Your task to perform on an android device: Go to CNN.com Image 0: 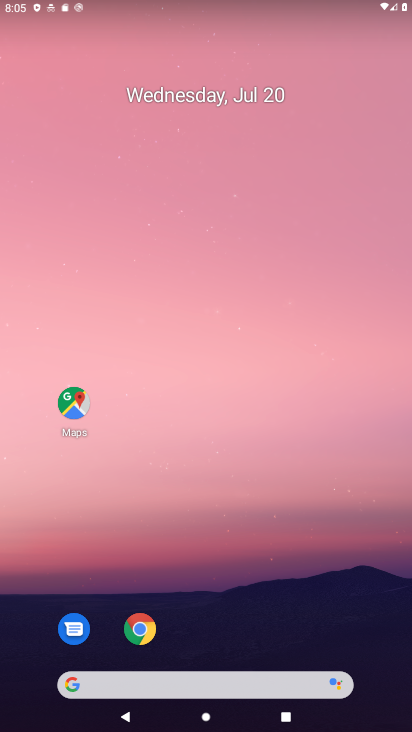
Step 0: drag from (288, 582) to (288, 113)
Your task to perform on an android device: Go to CNN.com Image 1: 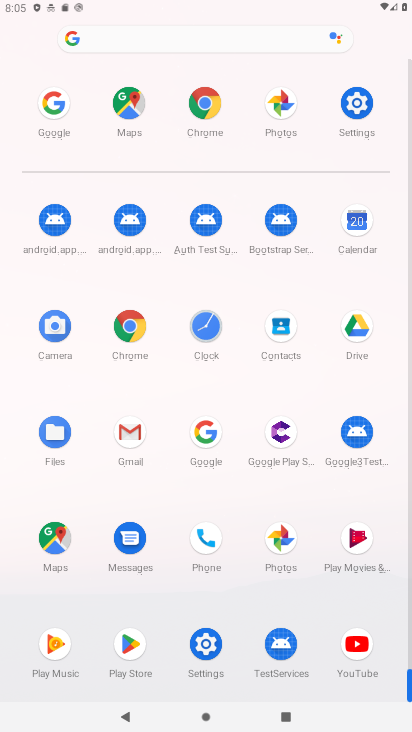
Step 1: click (206, 107)
Your task to perform on an android device: Go to CNN.com Image 2: 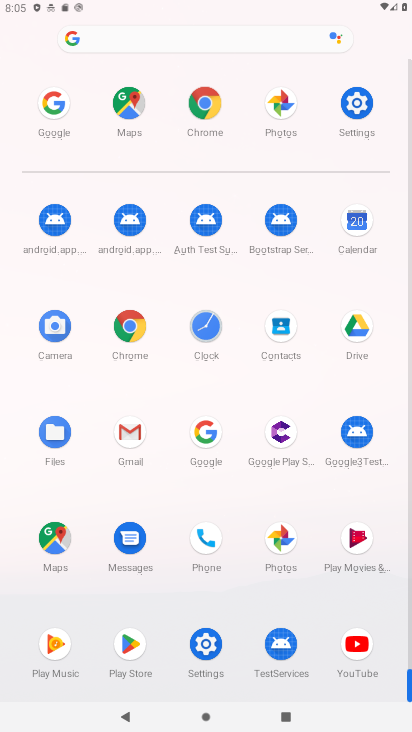
Step 2: click (207, 106)
Your task to perform on an android device: Go to CNN.com Image 3: 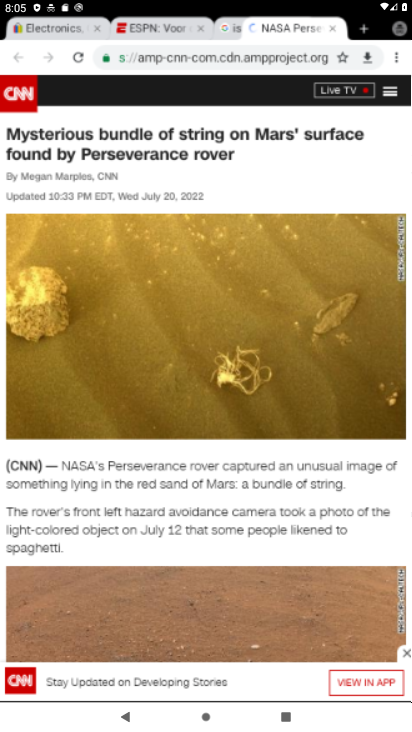
Step 3: drag from (397, 55) to (282, 52)
Your task to perform on an android device: Go to CNN.com Image 4: 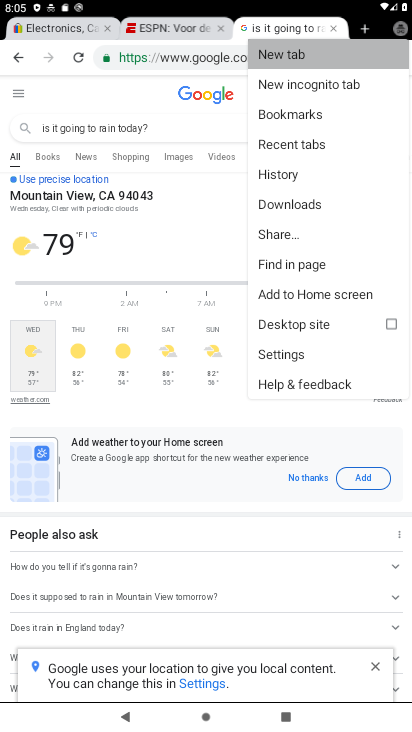
Step 4: click (284, 50)
Your task to perform on an android device: Go to CNN.com Image 5: 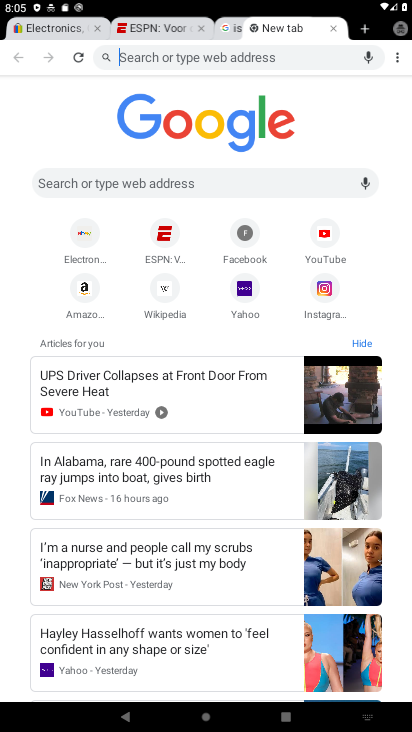
Step 5: click (72, 172)
Your task to perform on an android device: Go to CNN.com Image 6: 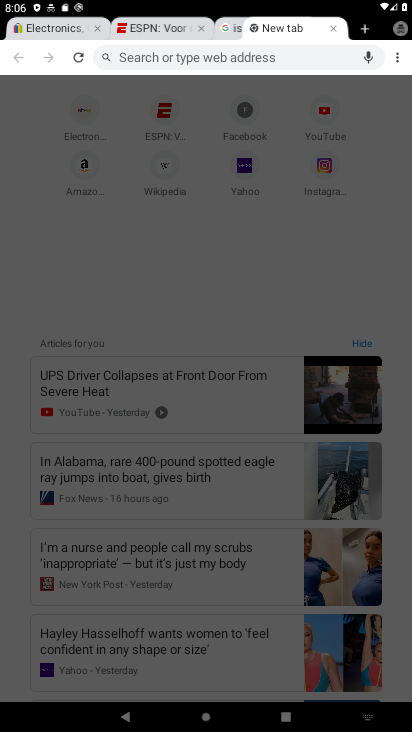
Step 6: type "cnn.com"
Your task to perform on an android device: Go to CNN.com Image 7: 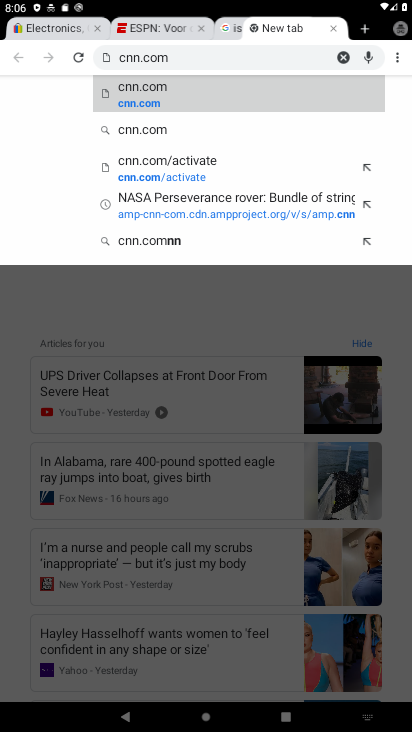
Step 7: click (154, 97)
Your task to perform on an android device: Go to CNN.com Image 8: 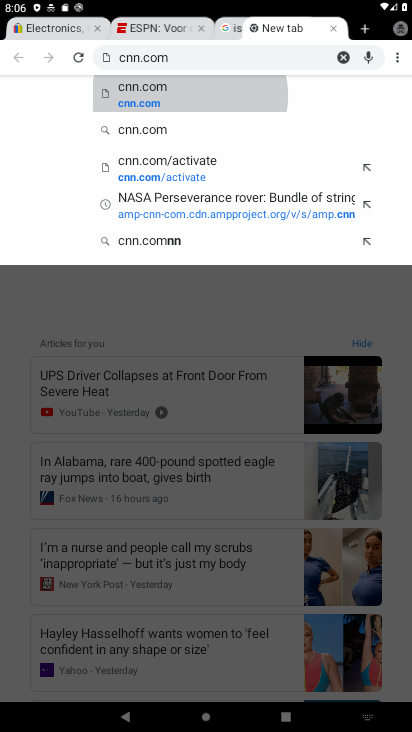
Step 8: click (153, 99)
Your task to perform on an android device: Go to CNN.com Image 9: 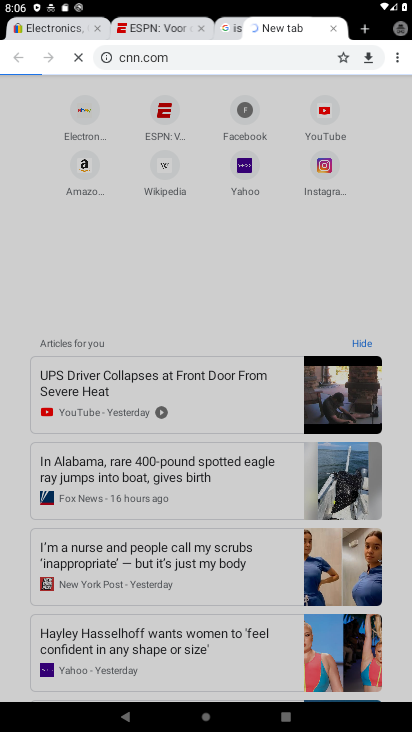
Step 9: click (154, 101)
Your task to perform on an android device: Go to CNN.com Image 10: 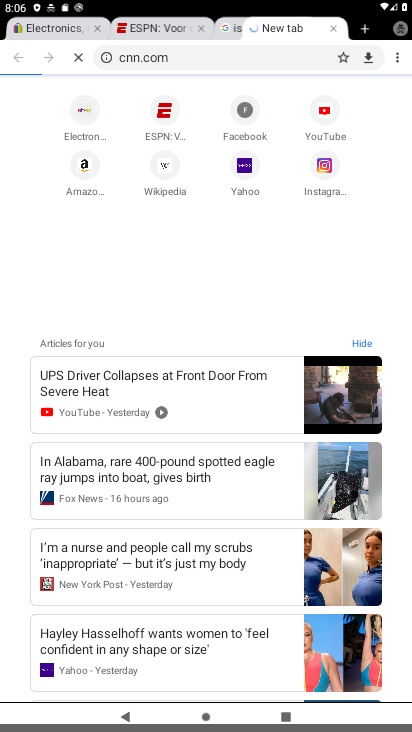
Step 10: click (154, 101)
Your task to perform on an android device: Go to CNN.com Image 11: 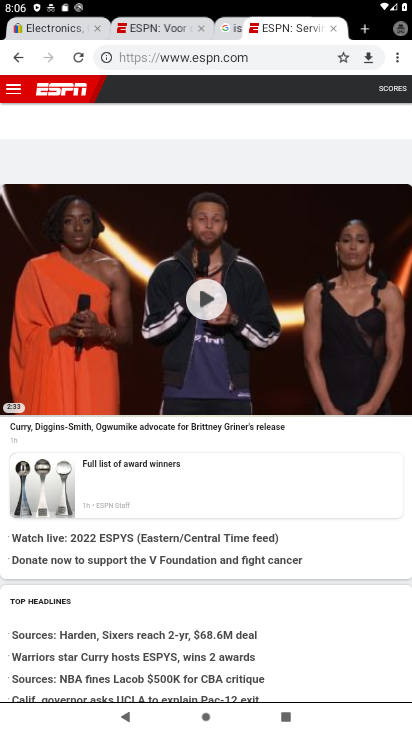
Step 11: click (201, 30)
Your task to perform on an android device: Go to CNN.com Image 12: 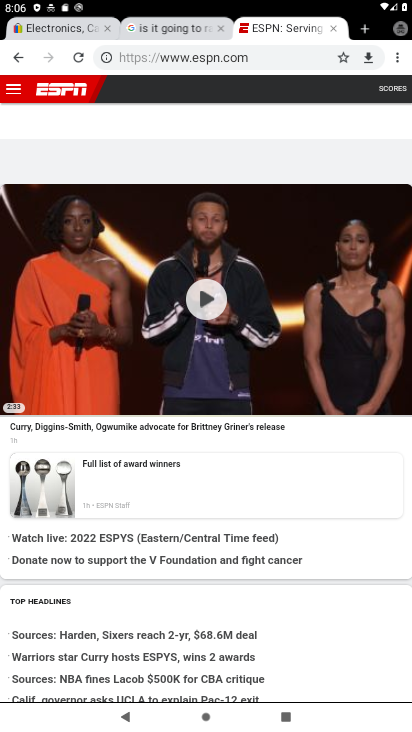
Step 12: click (99, 32)
Your task to perform on an android device: Go to CNN.com Image 13: 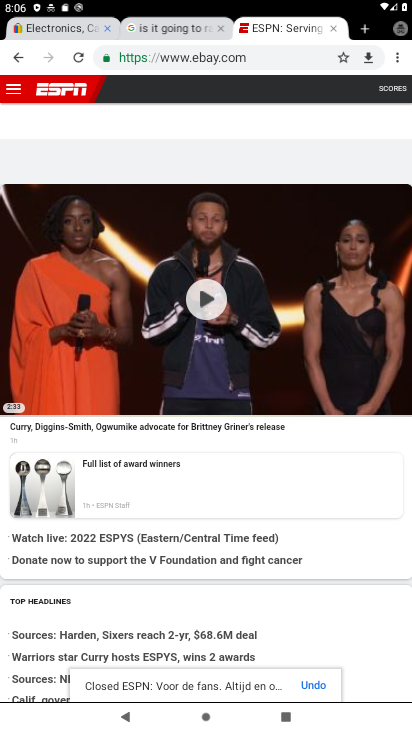
Step 13: click (99, 29)
Your task to perform on an android device: Go to CNN.com Image 14: 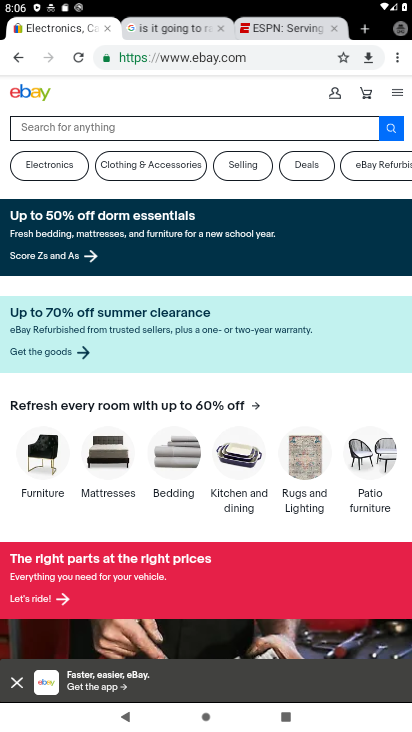
Step 14: press back button
Your task to perform on an android device: Go to CNN.com Image 15: 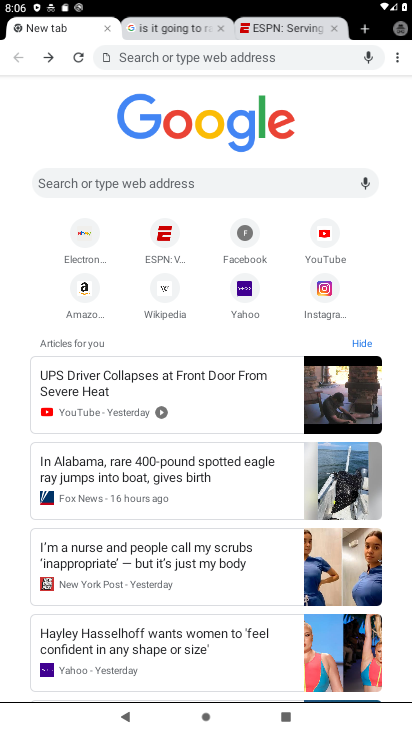
Step 15: click (178, 37)
Your task to perform on an android device: Go to CNN.com Image 16: 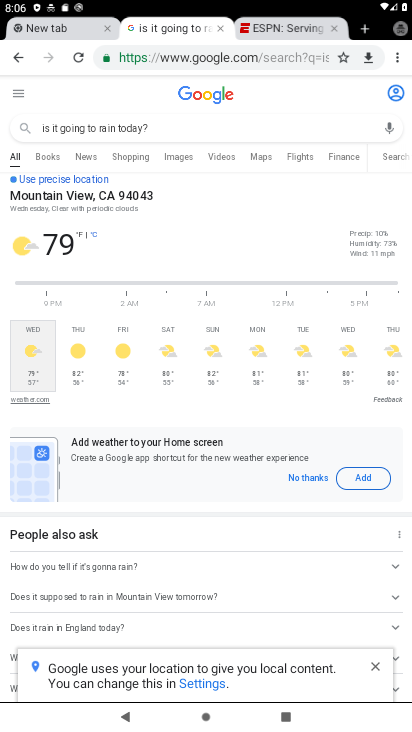
Step 16: click (80, 31)
Your task to perform on an android device: Go to CNN.com Image 17: 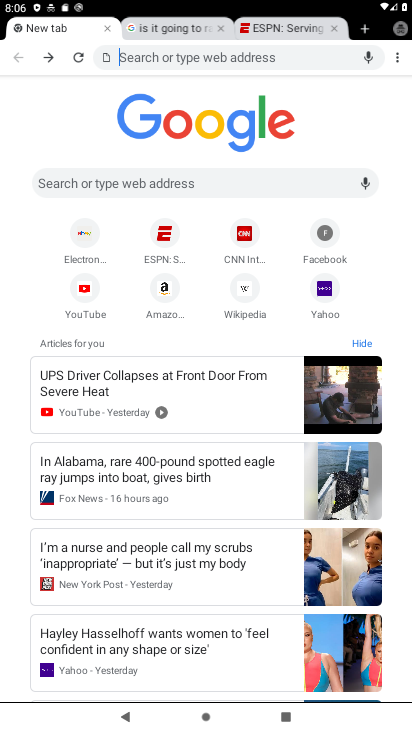
Step 17: type "cnn.com"
Your task to perform on an android device: Go to CNN.com Image 18: 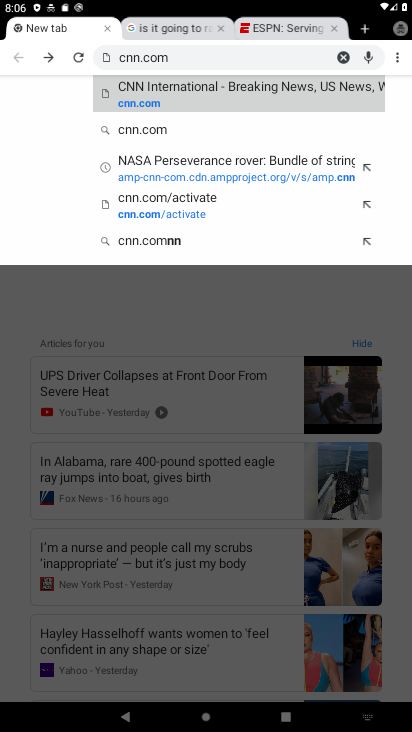
Step 18: click (143, 104)
Your task to perform on an android device: Go to CNN.com Image 19: 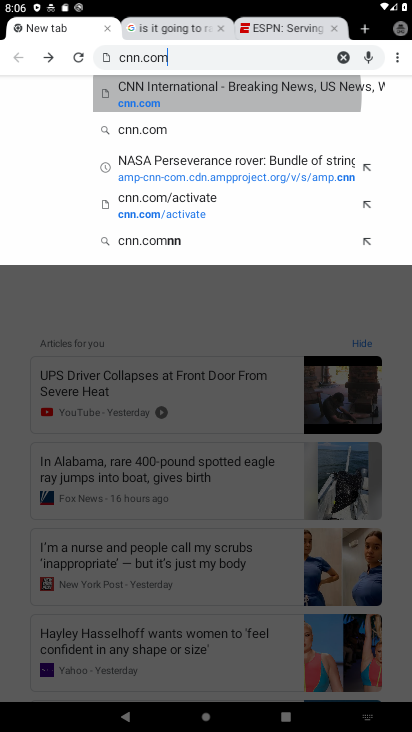
Step 19: click (145, 102)
Your task to perform on an android device: Go to CNN.com Image 20: 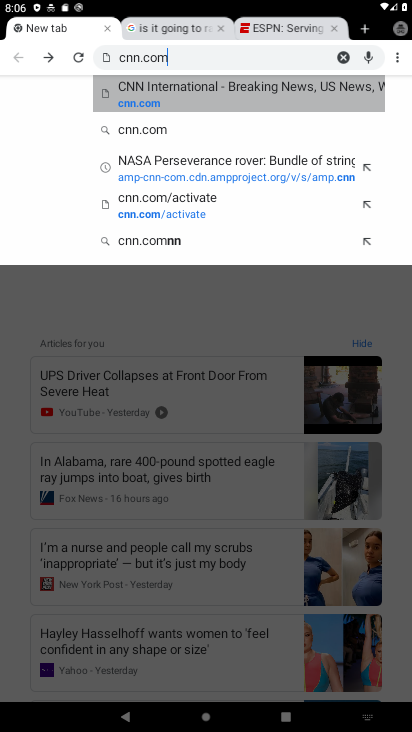
Step 20: click (145, 102)
Your task to perform on an android device: Go to CNN.com Image 21: 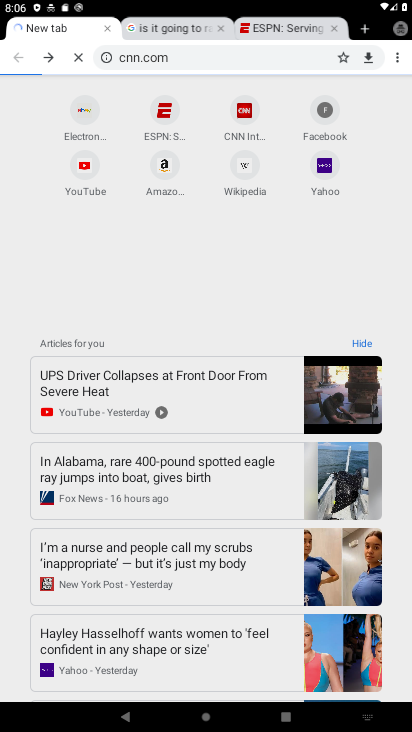
Step 21: click (145, 103)
Your task to perform on an android device: Go to CNN.com Image 22: 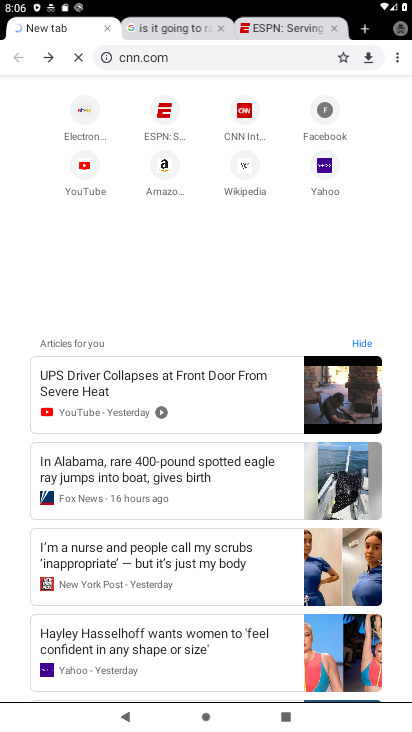
Step 22: task complete